Your task to perform on an android device: Open Google Chrome and open the bookmarks view Image 0: 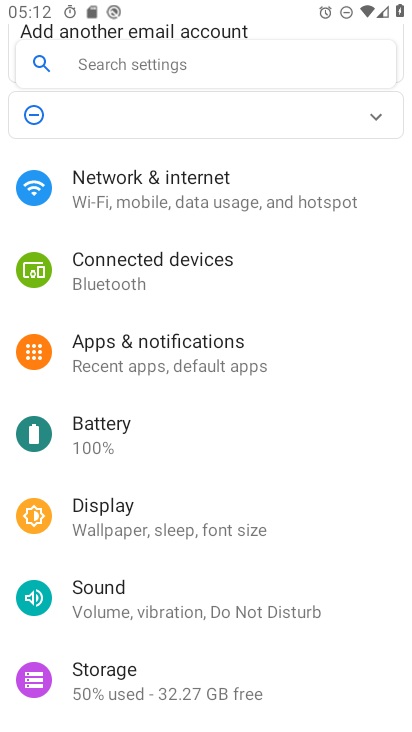
Step 0: press home button
Your task to perform on an android device: Open Google Chrome and open the bookmarks view Image 1: 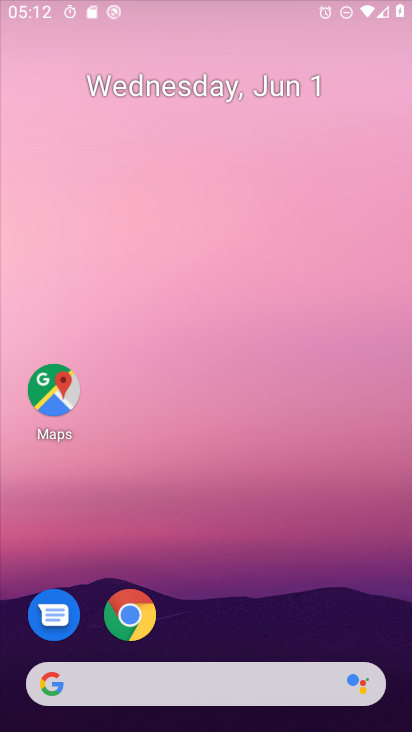
Step 1: drag from (238, 711) to (354, 11)
Your task to perform on an android device: Open Google Chrome and open the bookmarks view Image 2: 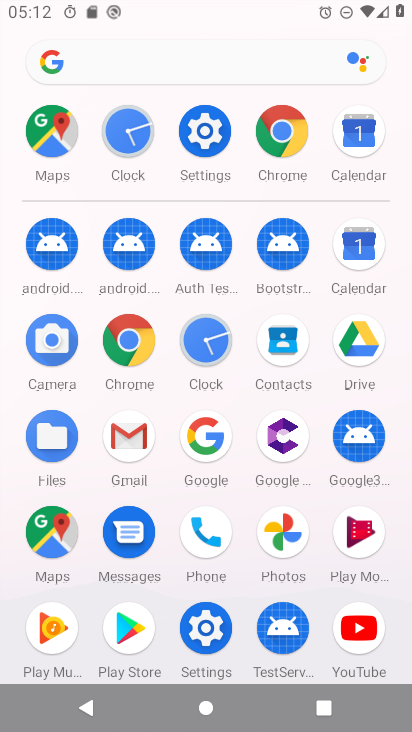
Step 2: click (133, 348)
Your task to perform on an android device: Open Google Chrome and open the bookmarks view Image 3: 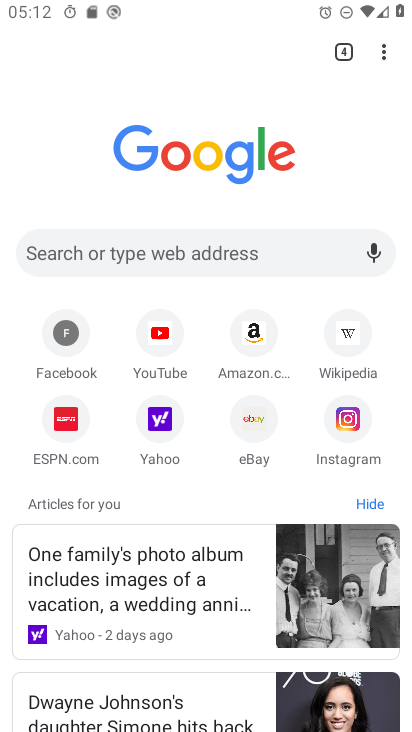
Step 3: task complete